Your task to perform on an android device: Go to Android settings Image 0: 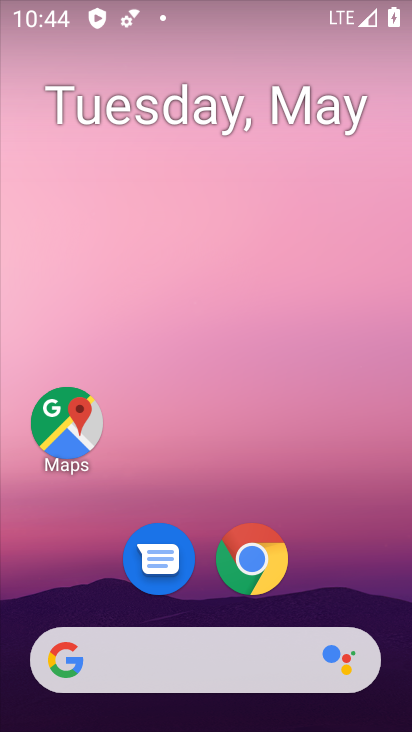
Step 0: drag from (343, 573) to (331, 137)
Your task to perform on an android device: Go to Android settings Image 1: 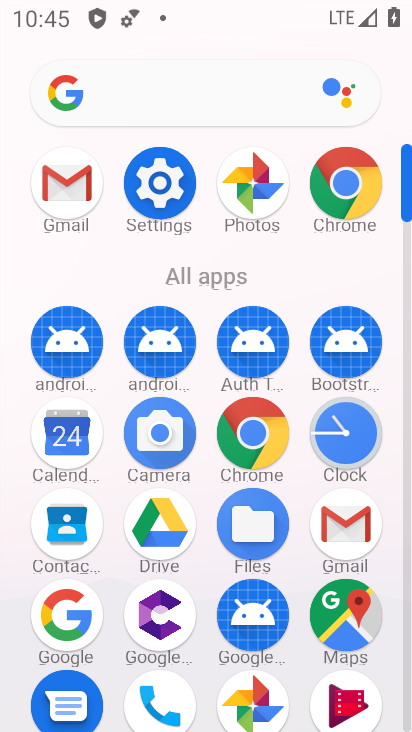
Step 1: click (158, 194)
Your task to perform on an android device: Go to Android settings Image 2: 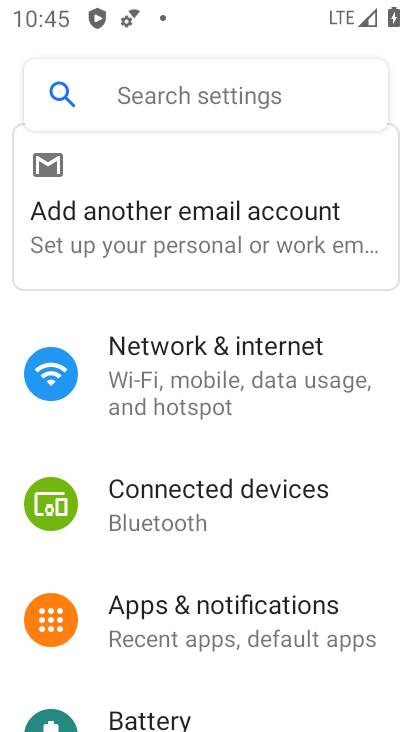
Step 2: task complete